Your task to perform on an android device: Open the Play Movies app and select the watchlist tab. Image 0: 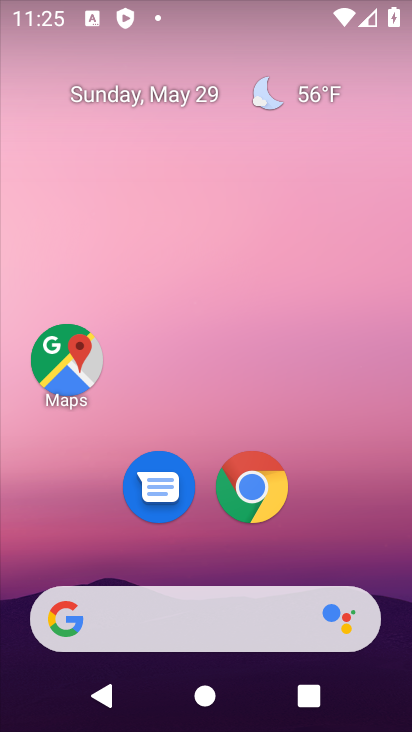
Step 0: drag from (267, 557) to (306, 113)
Your task to perform on an android device: Open the Play Movies app and select the watchlist tab. Image 1: 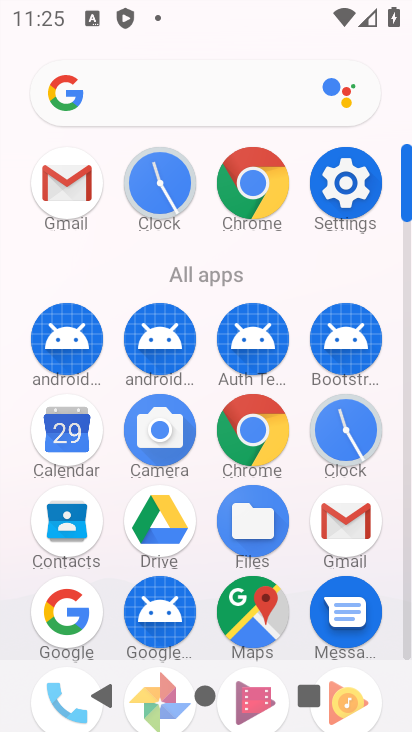
Step 1: drag from (270, 560) to (298, 347)
Your task to perform on an android device: Open the Play Movies app and select the watchlist tab. Image 2: 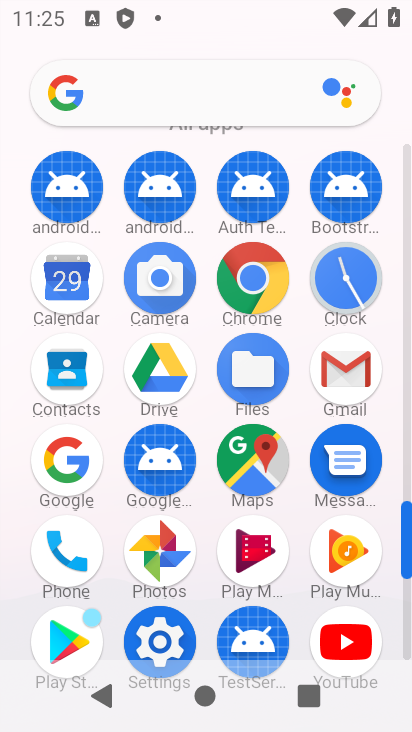
Step 2: click (253, 562)
Your task to perform on an android device: Open the Play Movies app and select the watchlist tab. Image 3: 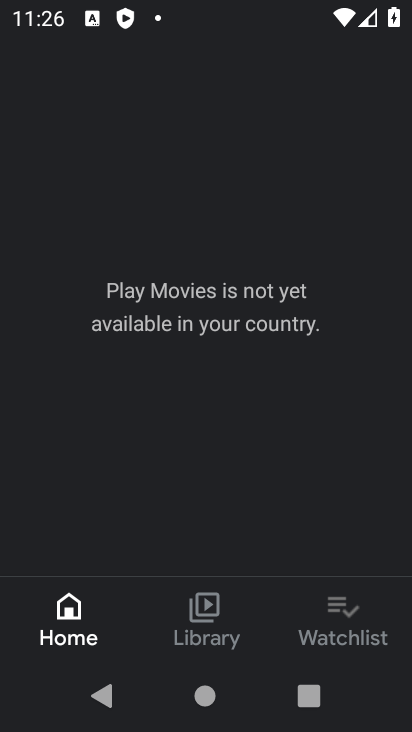
Step 3: click (330, 609)
Your task to perform on an android device: Open the Play Movies app and select the watchlist tab. Image 4: 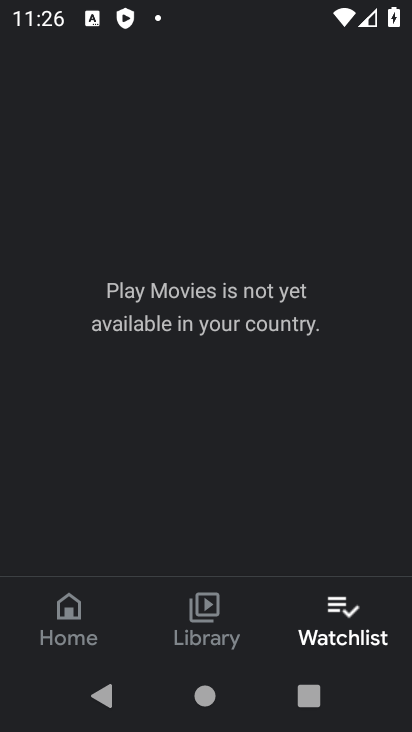
Step 4: task complete